Your task to perform on an android device: turn off translation in the chrome app Image 0: 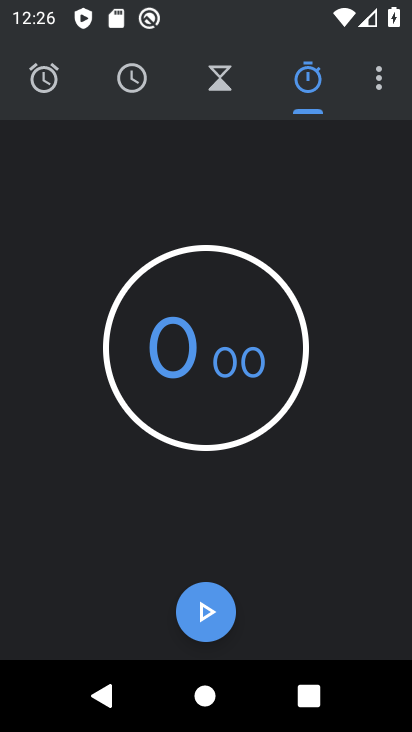
Step 0: press back button
Your task to perform on an android device: turn off translation in the chrome app Image 1: 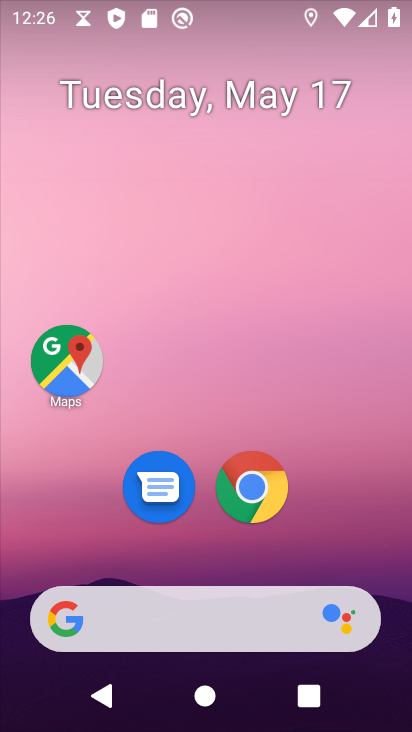
Step 1: drag from (371, 548) to (303, 27)
Your task to perform on an android device: turn off translation in the chrome app Image 2: 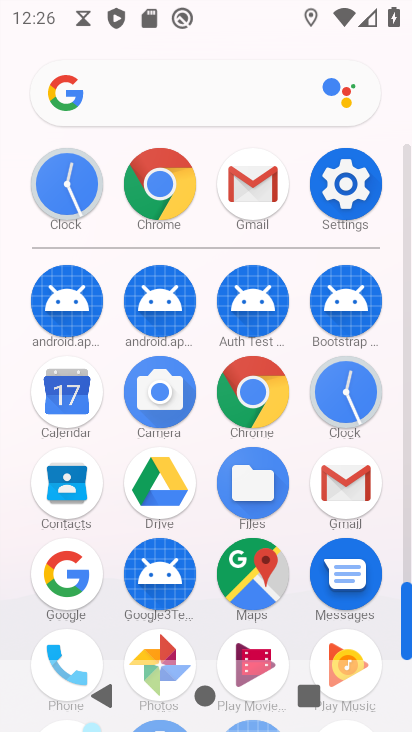
Step 2: click (155, 174)
Your task to perform on an android device: turn off translation in the chrome app Image 3: 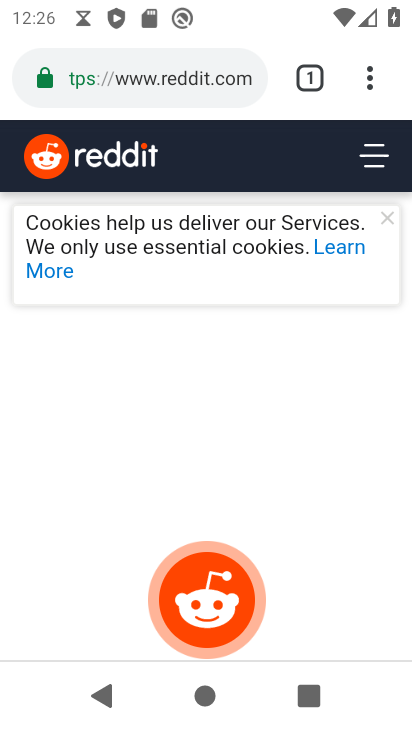
Step 3: drag from (369, 75) to (110, 548)
Your task to perform on an android device: turn off translation in the chrome app Image 4: 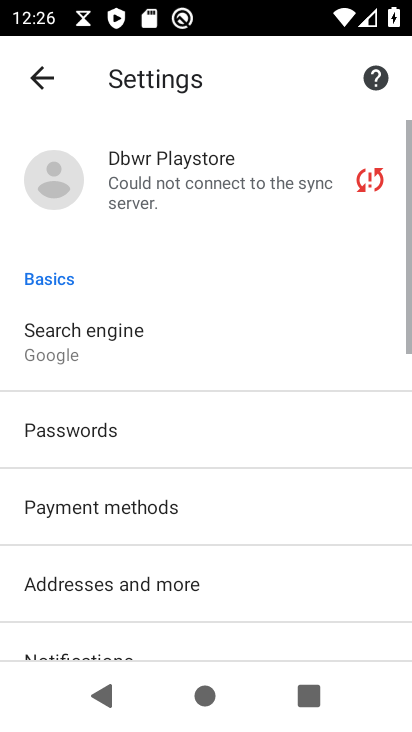
Step 4: drag from (224, 573) to (242, 208)
Your task to perform on an android device: turn off translation in the chrome app Image 5: 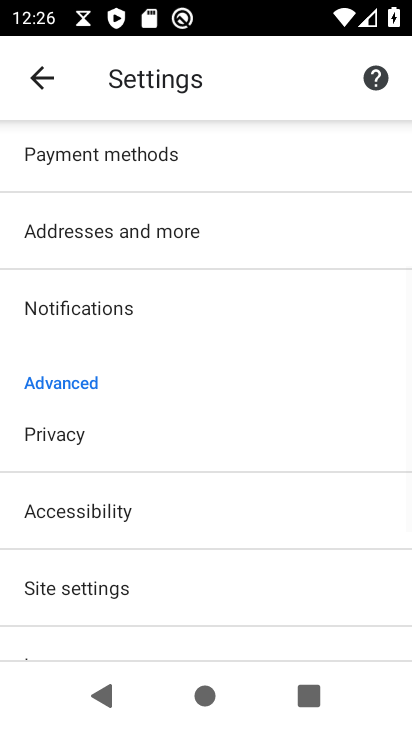
Step 5: drag from (239, 591) to (248, 219)
Your task to perform on an android device: turn off translation in the chrome app Image 6: 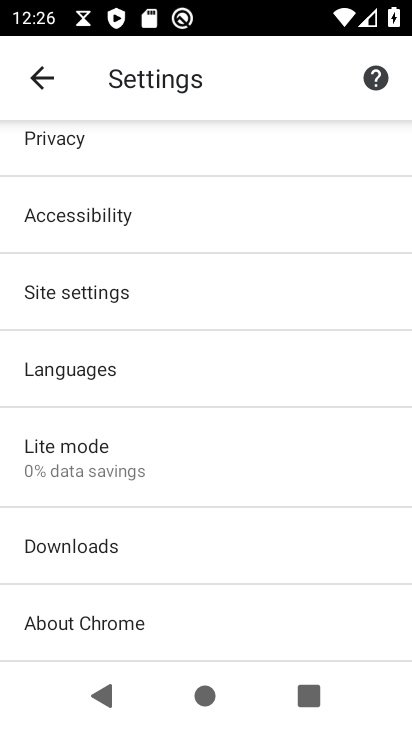
Step 6: click (133, 373)
Your task to perform on an android device: turn off translation in the chrome app Image 7: 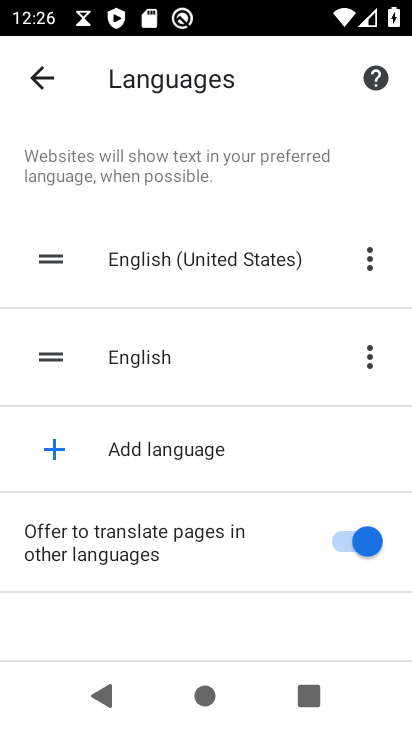
Step 7: click (361, 551)
Your task to perform on an android device: turn off translation in the chrome app Image 8: 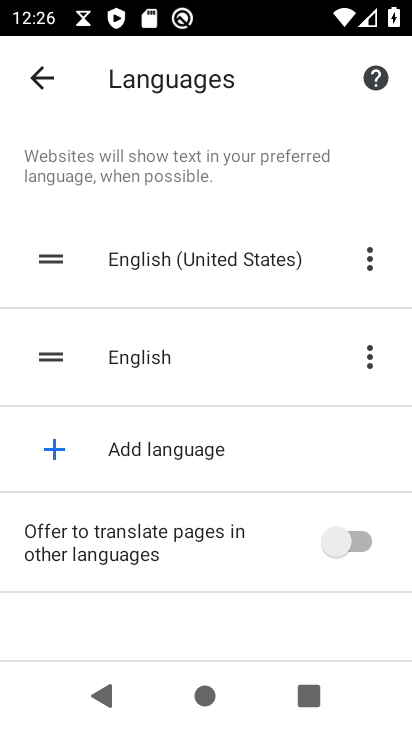
Step 8: task complete